Your task to perform on an android device: install app "Booking.com: Hotels and more" Image 0: 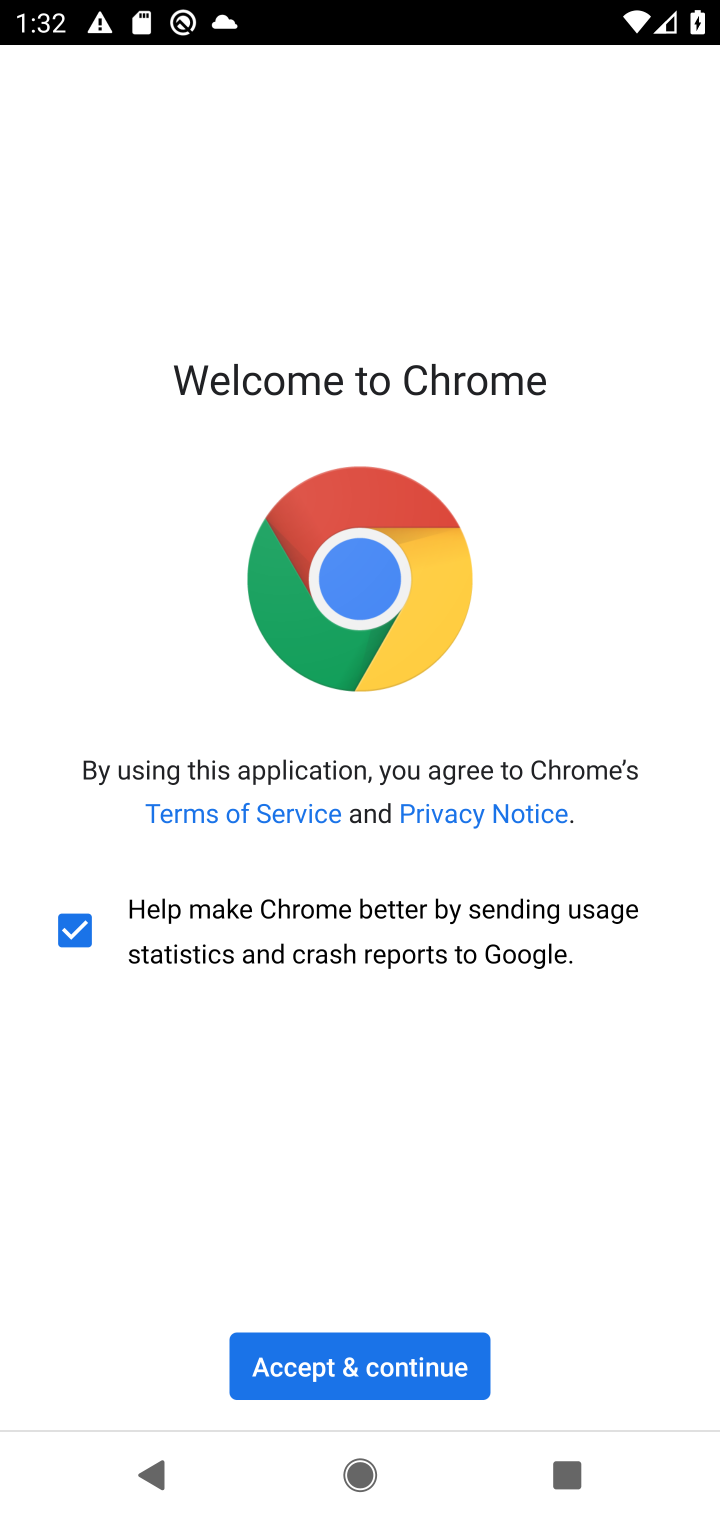
Step 0: press home button
Your task to perform on an android device: install app "Booking.com: Hotels and more" Image 1: 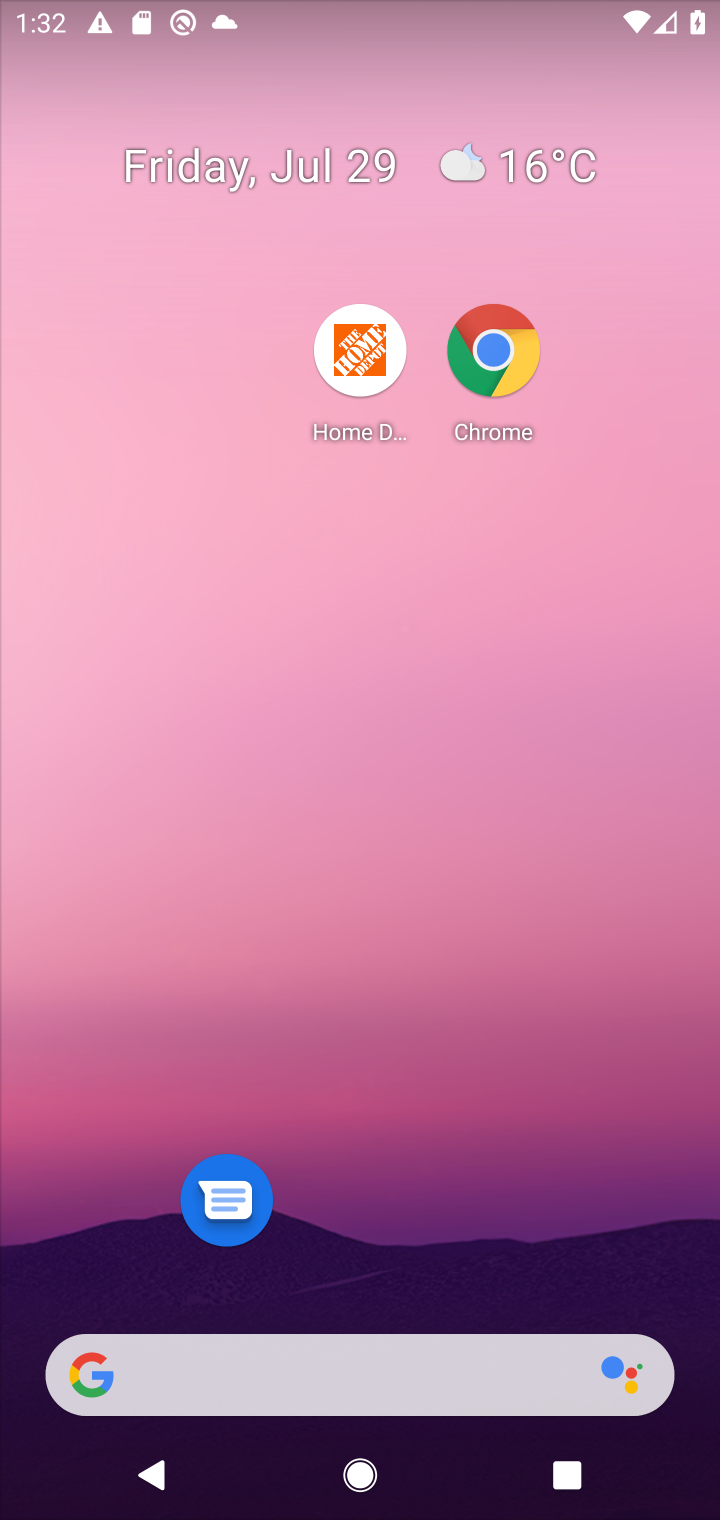
Step 1: press home button
Your task to perform on an android device: install app "Booking.com: Hotels and more" Image 2: 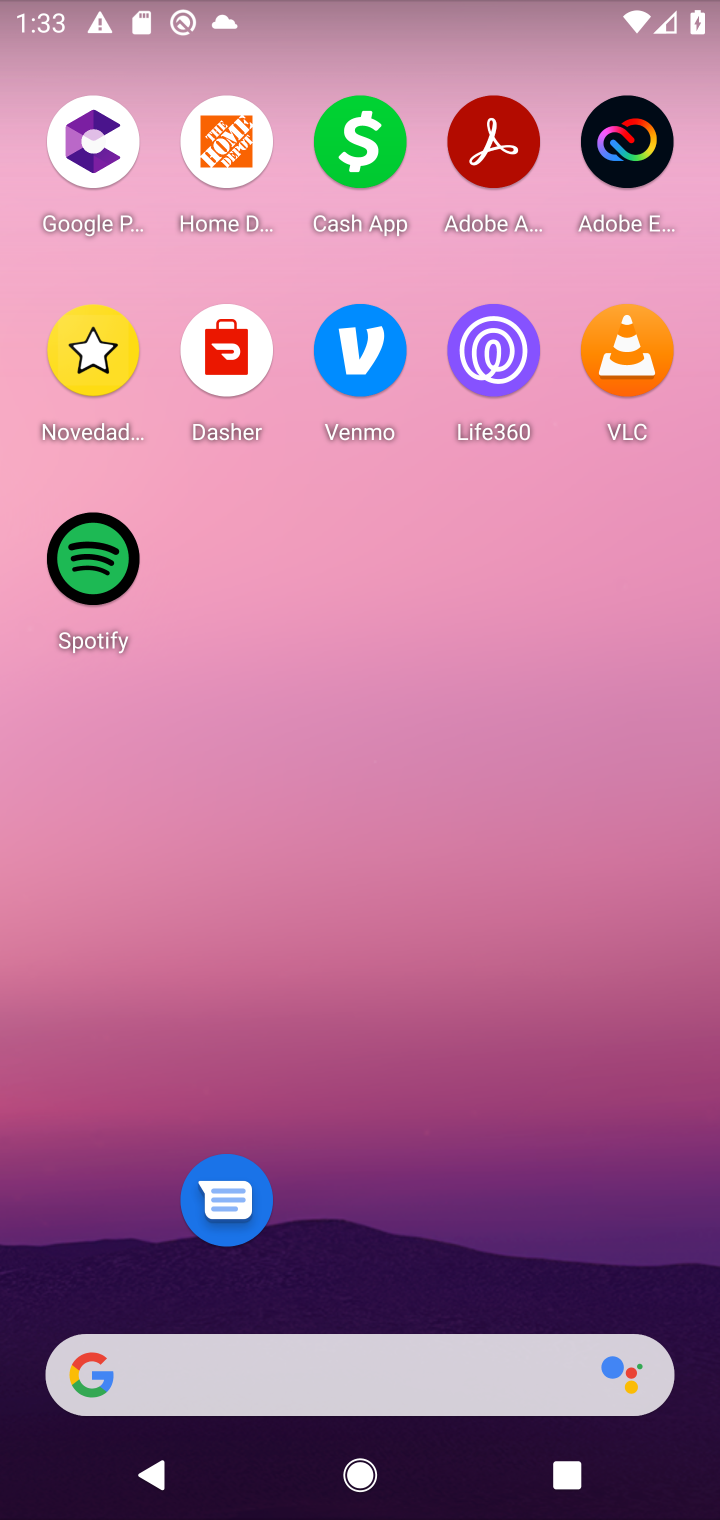
Step 2: drag from (469, 1189) to (566, 288)
Your task to perform on an android device: install app "Booking.com: Hotels and more" Image 3: 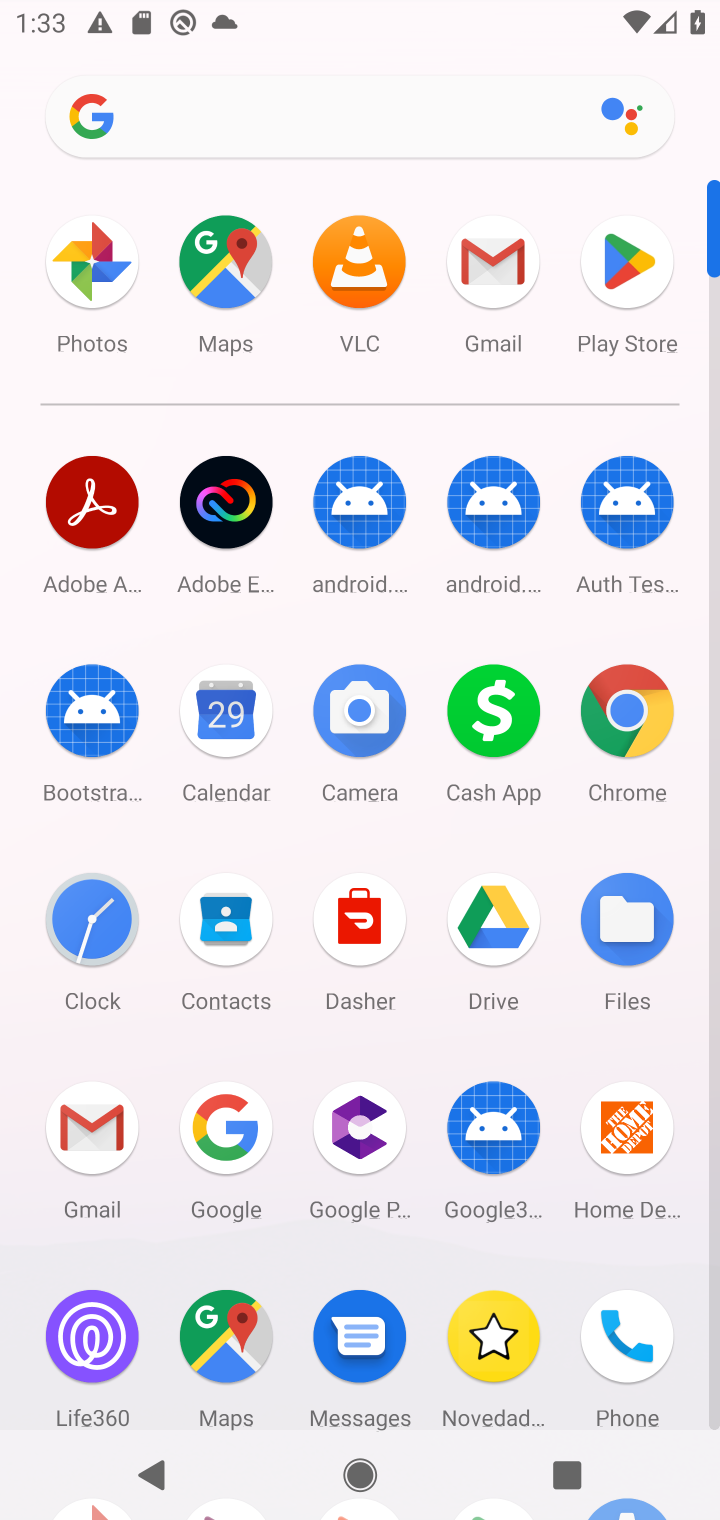
Step 3: click (611, 266)
Your task to perform on an android device: install app "Booking.com: Hotels and more" Image 4: 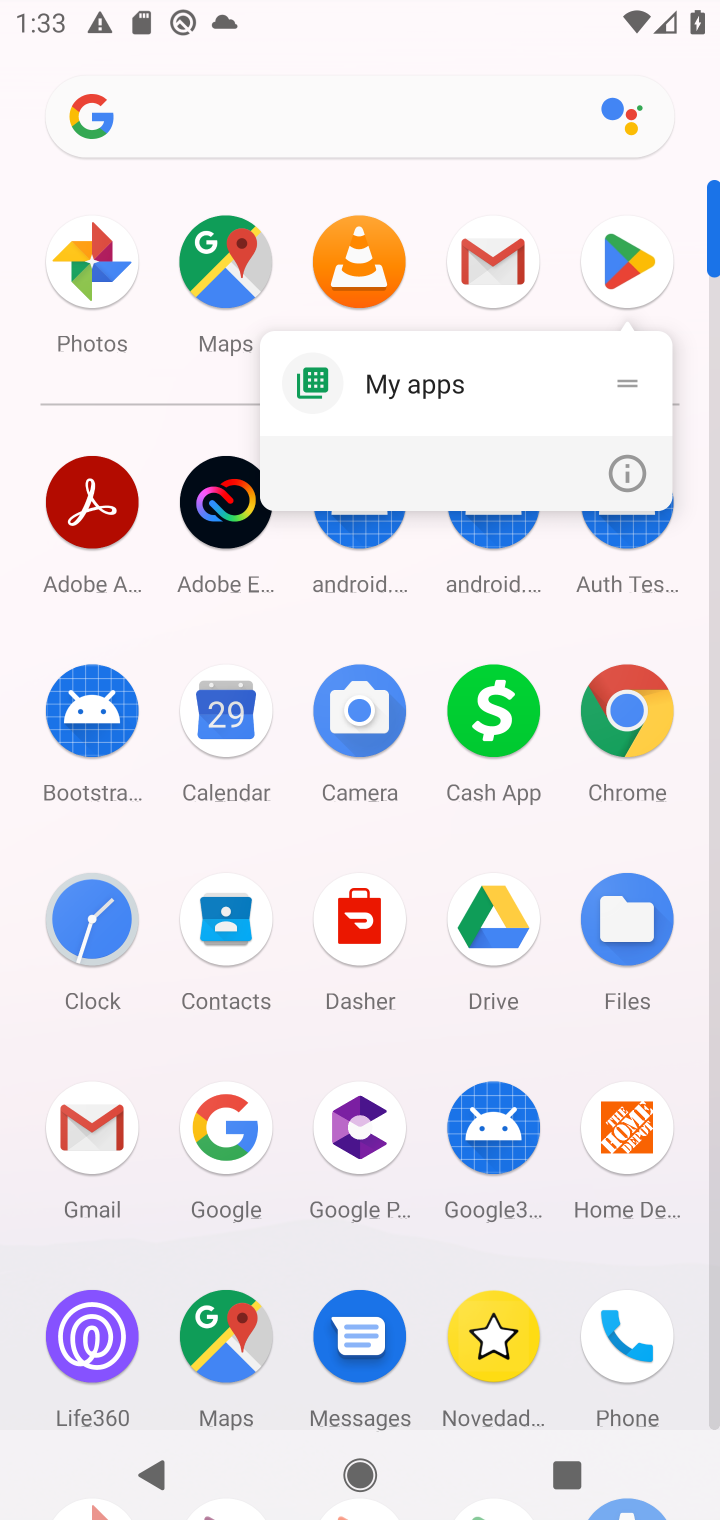
Step 4: click (628, 268)
Your task to perform on an android device: install app "Booking.com: Hotels and more" Image 5: 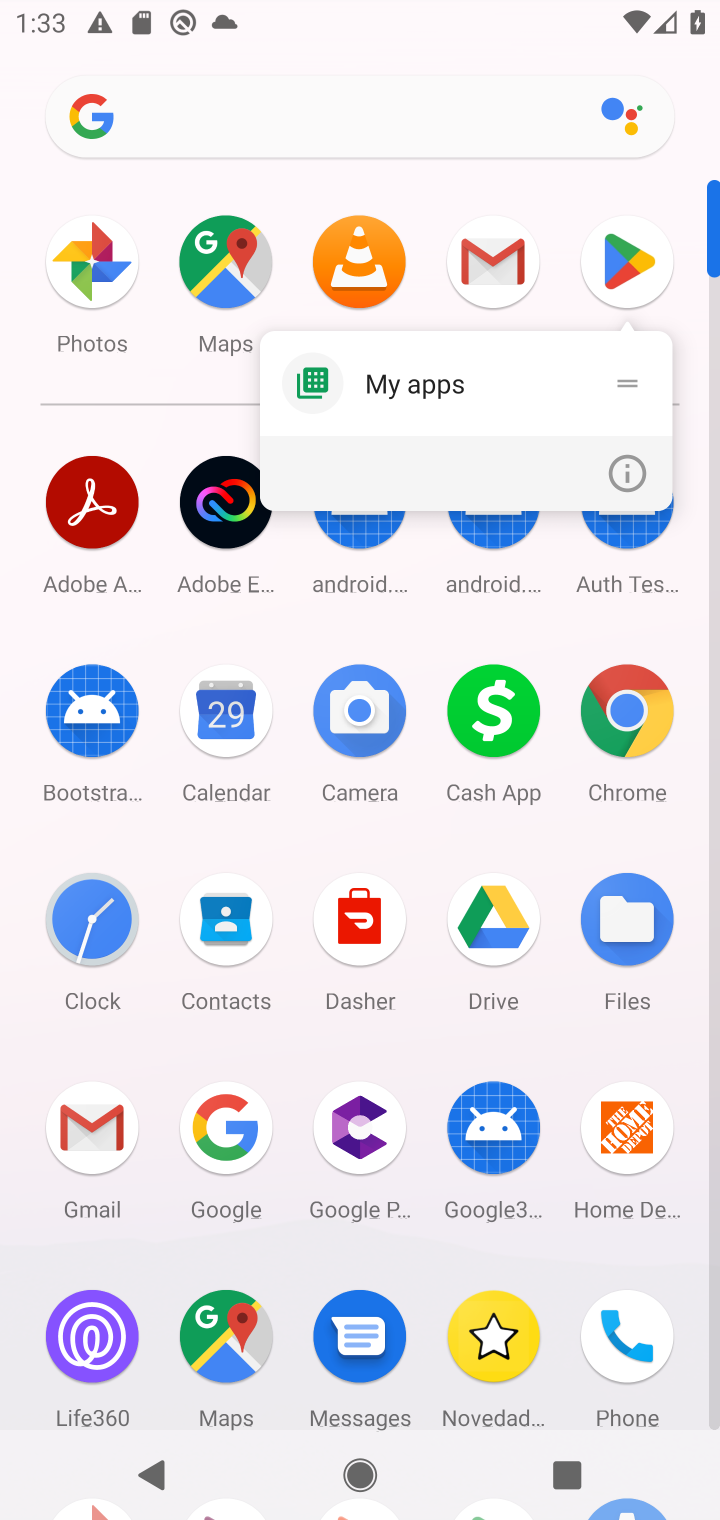
Step 5: click (616, 270)
Your task to perform on an android device: install app "Booking.com: Hotels and more" Image 6: 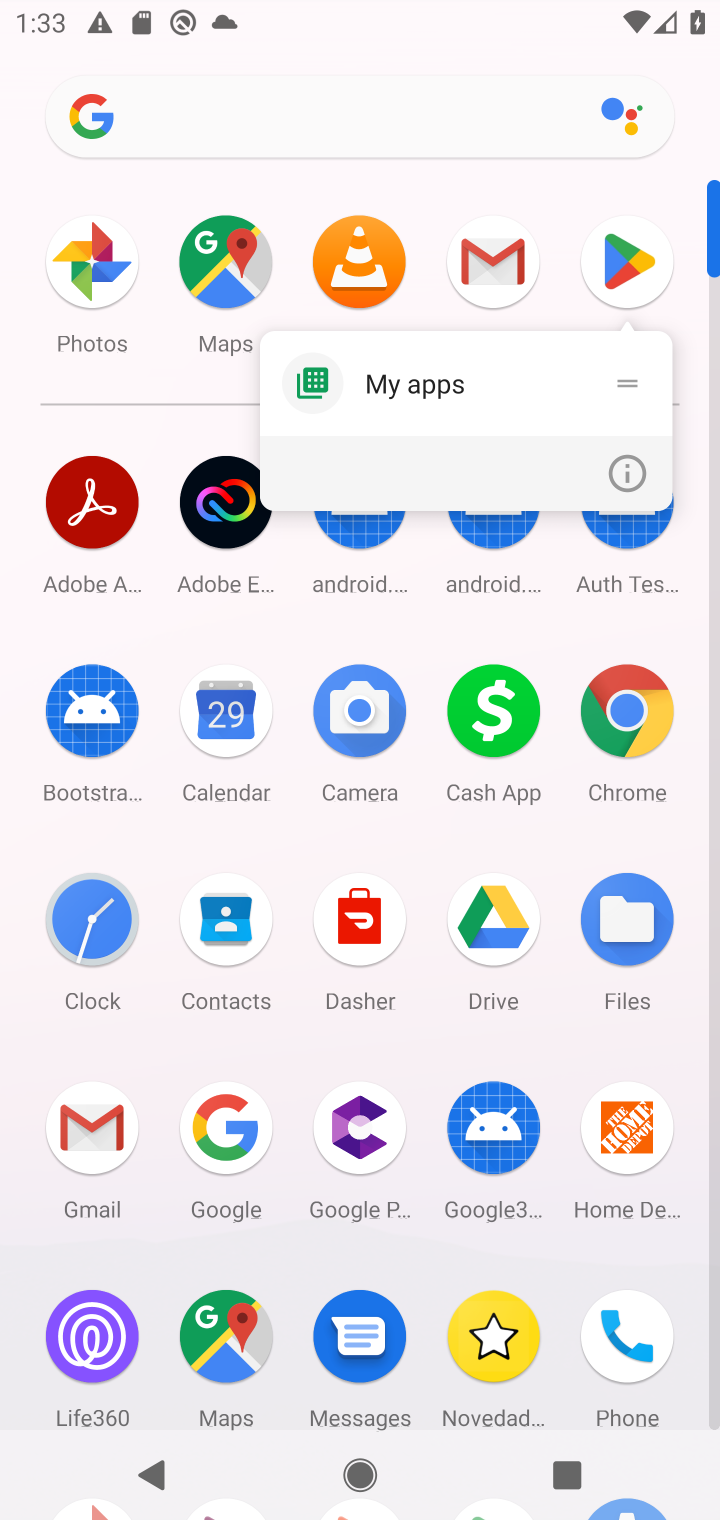
Step 6: click (616, 270)
Your task to perform on an android device: install app "Booking.com: Hotels and more" Image 7: 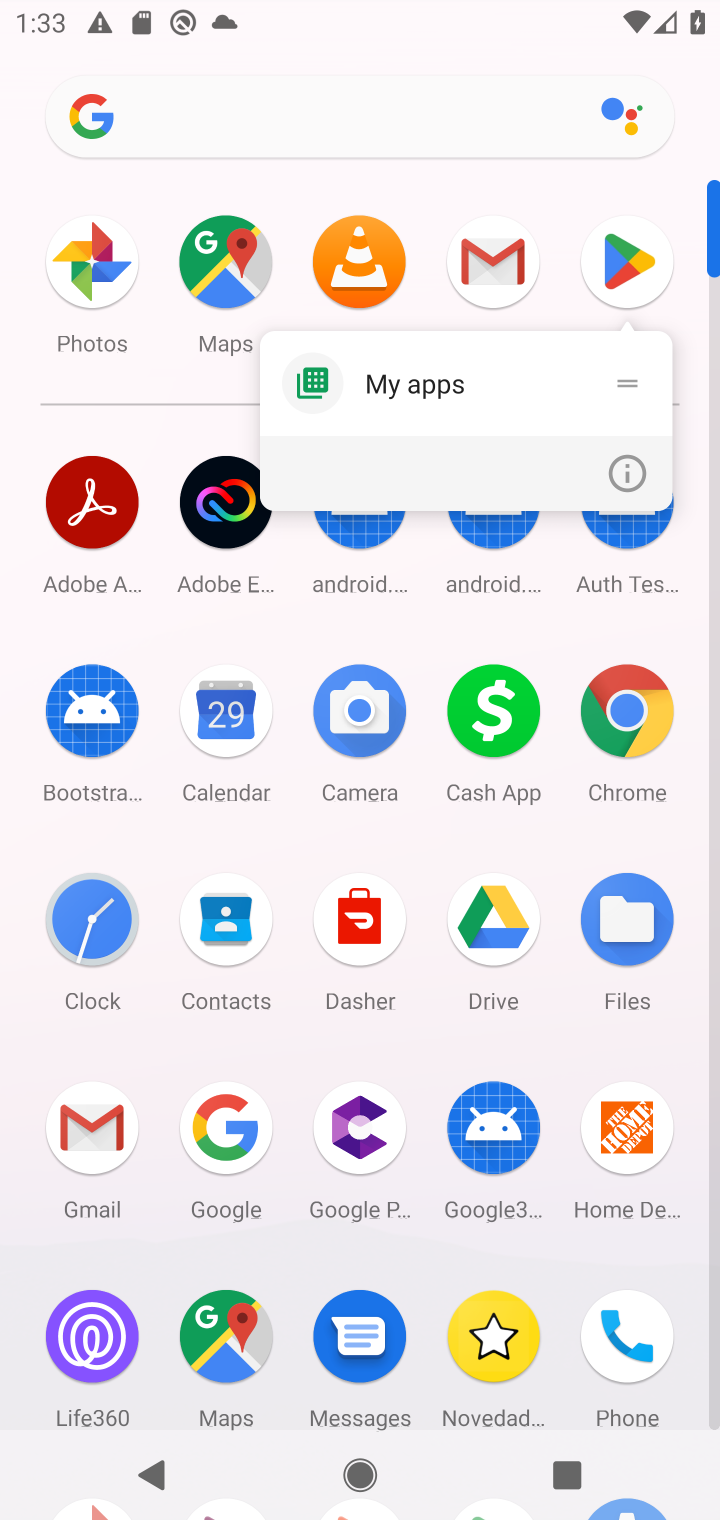
Step 7: click (537, 1022)
Your task to perform on an android device: install app "Booking.com: Hotels and more" Image 8: 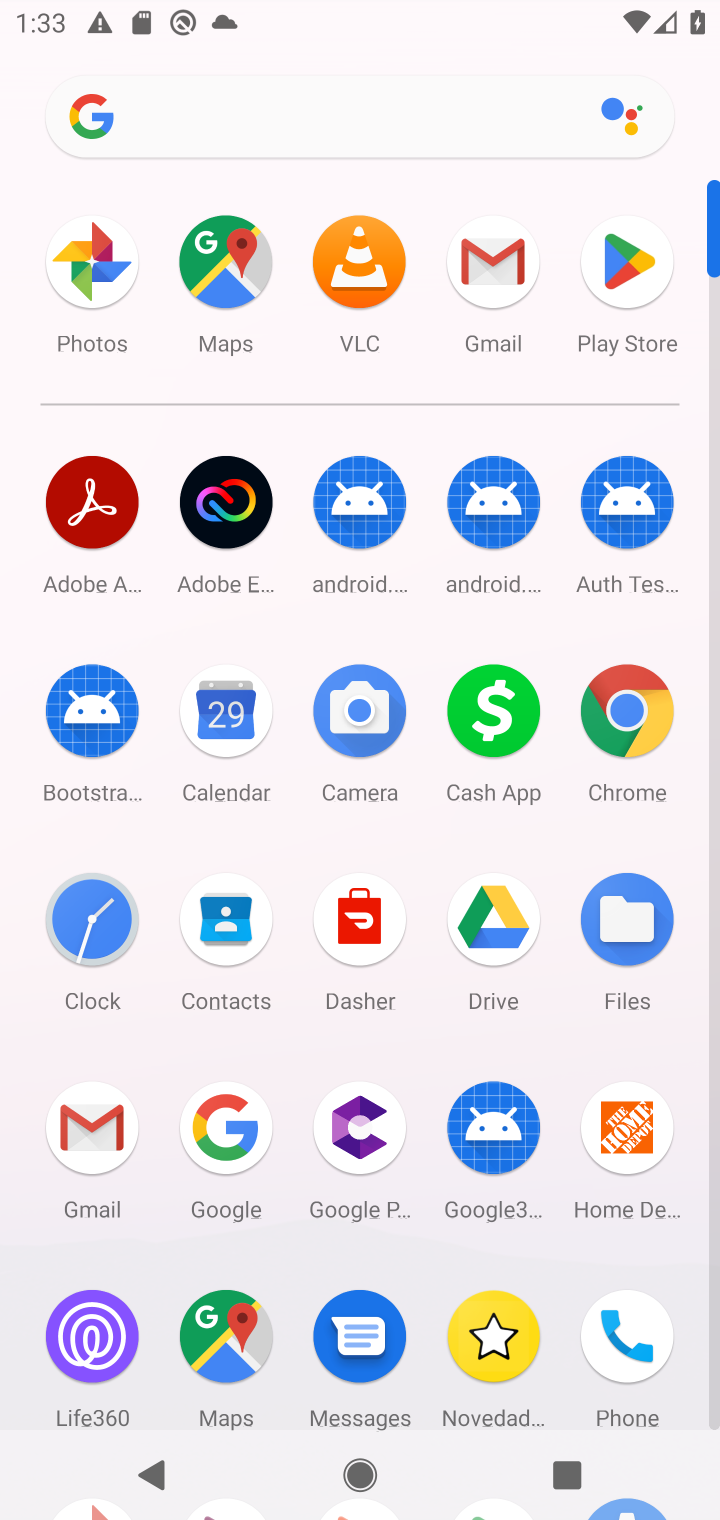
Step 8: click (636, 263)
Your task to perform on an android device: install app "Booking.com: Hotels and more" Image 9: 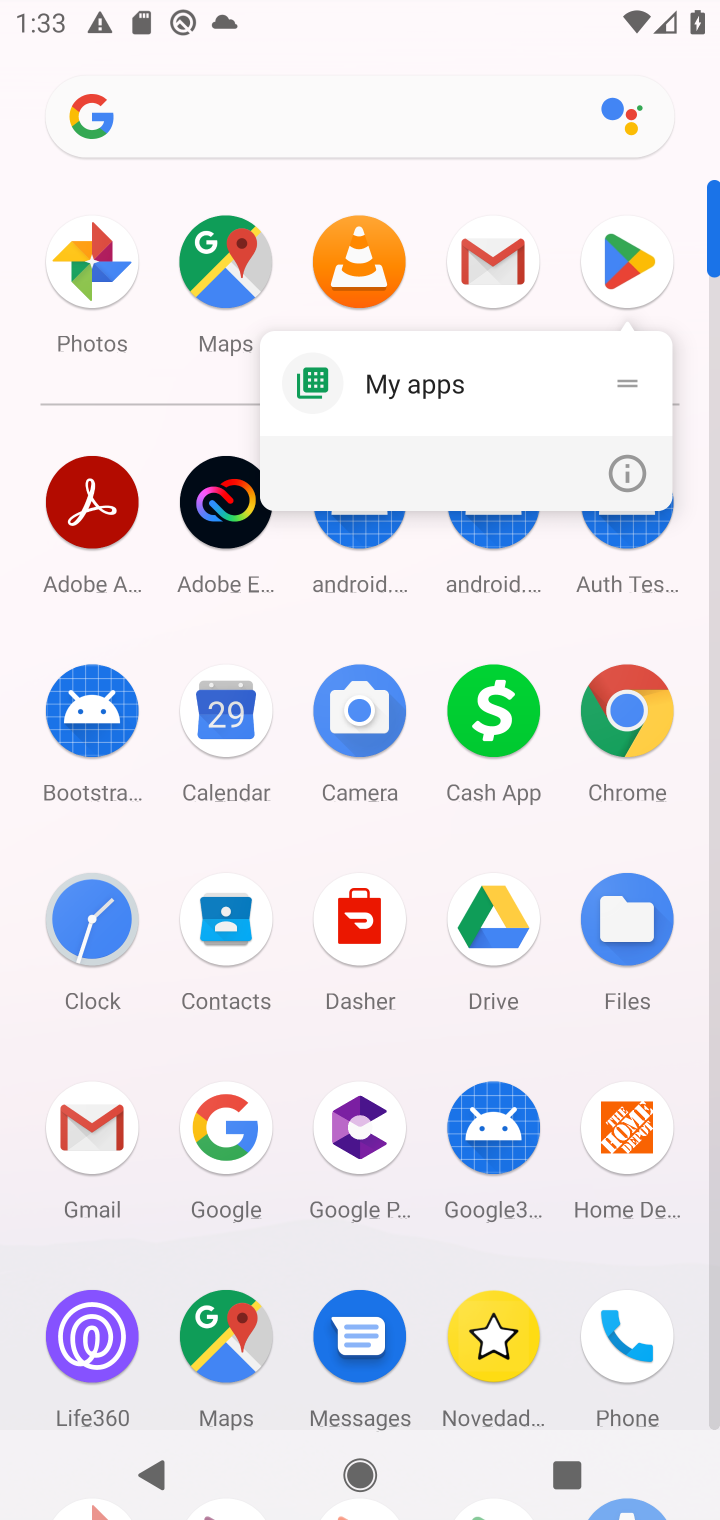
Step 9: task complete